Your task to perform on an android device: turn on javascript in the chrome app Image 0: 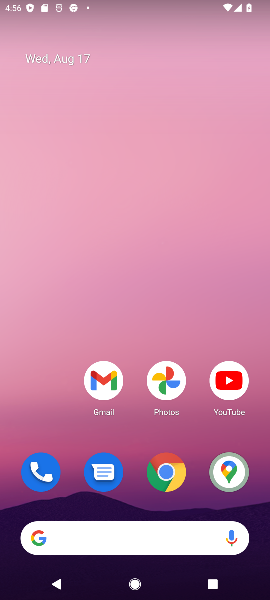
Step 0: click (161, 468)
Your task to perform on an android device: turn on javascript in the chrome app Image 1: 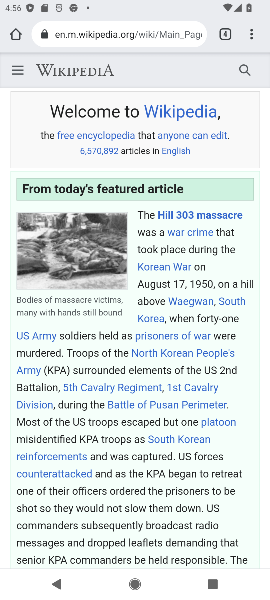
Step 1: click (248, 30)
Your task to perform on an android device: turn on javascript in the chrome app Image 2: 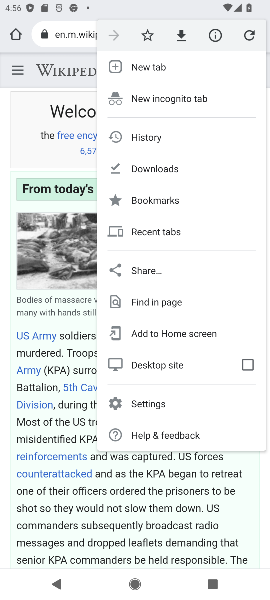
Step 2: click (132, 396)
Your task to perform on an android device: turn on javascript in the chrome app Image 3: 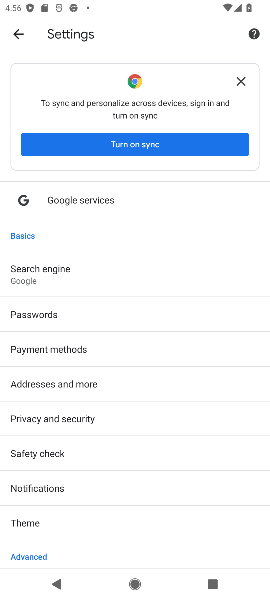
Step 3: drag from (96, 493) to (114, 249)
Your task to perform on an android device: turn on javascript in the chrome app Image 4: 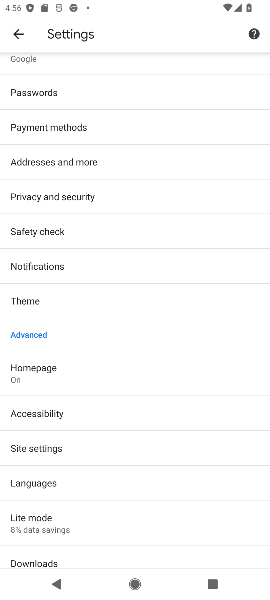
Step 4: click (77, 445)
Your task to perform on an android device: turn on javascript in the chrome app Image 5: 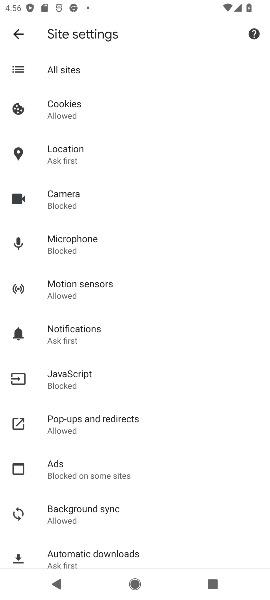
Step 5: click (120, 372)
Your task to perform on an android device: turn on javascript in the chrome app Image 6: 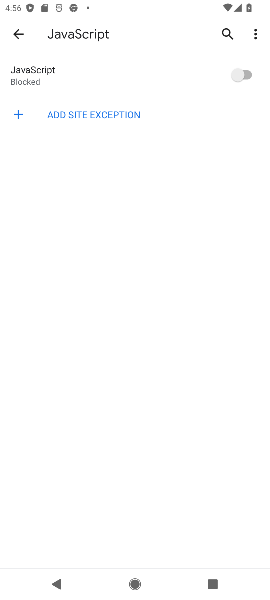
Step 6: click (246, 82)
Your task to perform on an android device: turn on javascript in the chrome app Image 7: 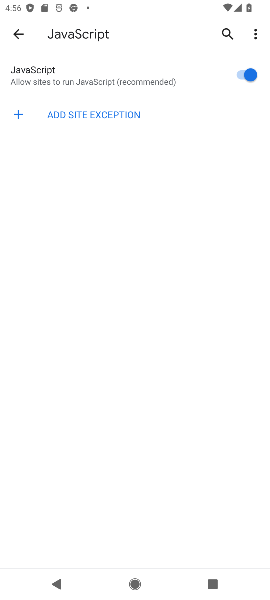
Step 7: task complete